Your task to perform on an android device: change keyboard looks Image 0: 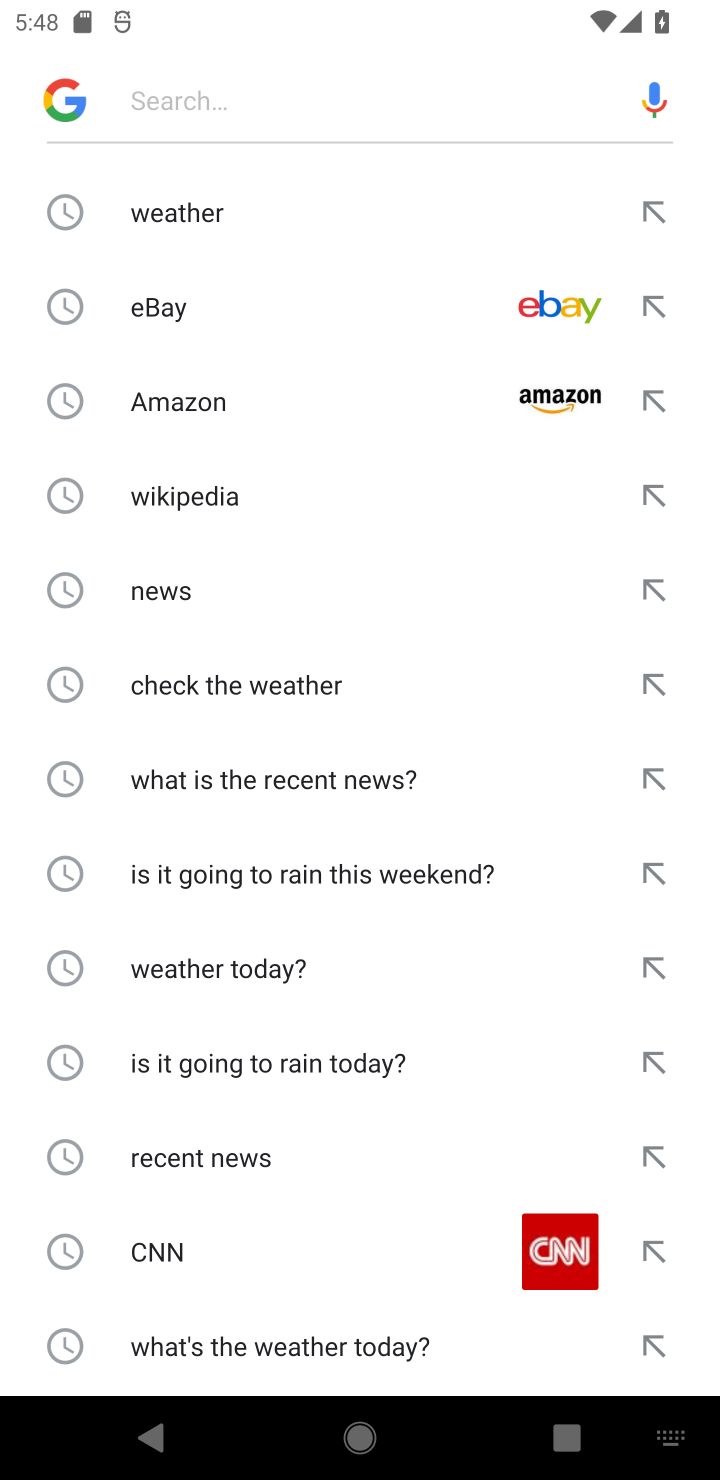
Step 0: task complete